Your task to perform on an android device: delete browsing data in the chrome app Image 0: 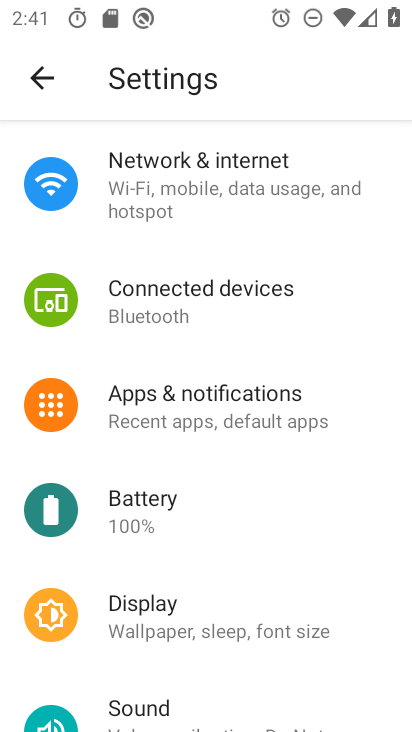
Step 0: press home button
Your task to perform on an android device: delete browsing data in the chrome app Image 1: 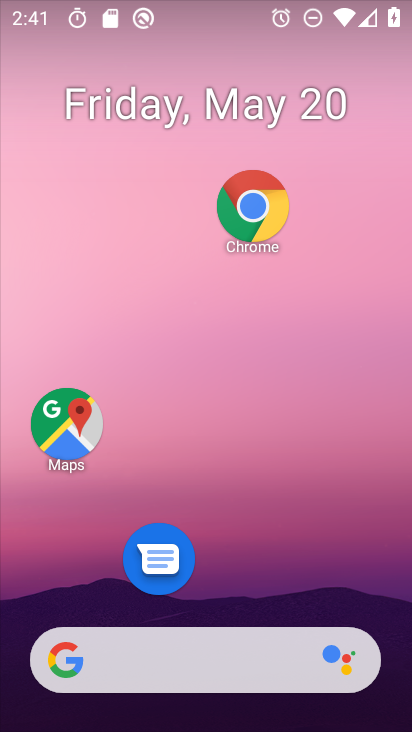
Step 1: drag from (211, 581) to (191, 18)
Your task to perform on an android device: delete browsing data in the chrome app Image 2: 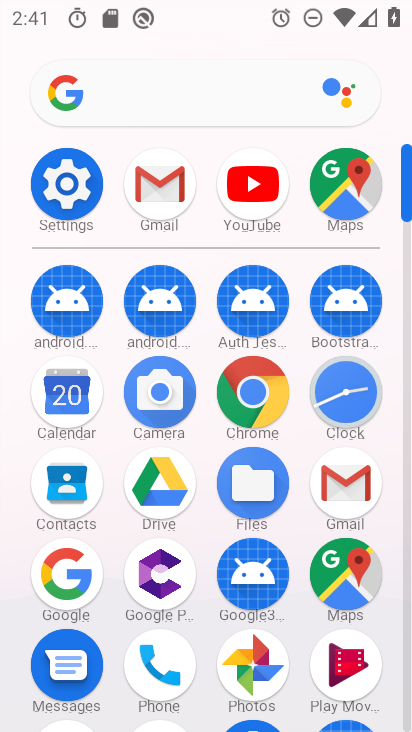
Step 2: click (248, 388)
Your task to perform on an android device: delete browsing data in the chrome app Image 3: 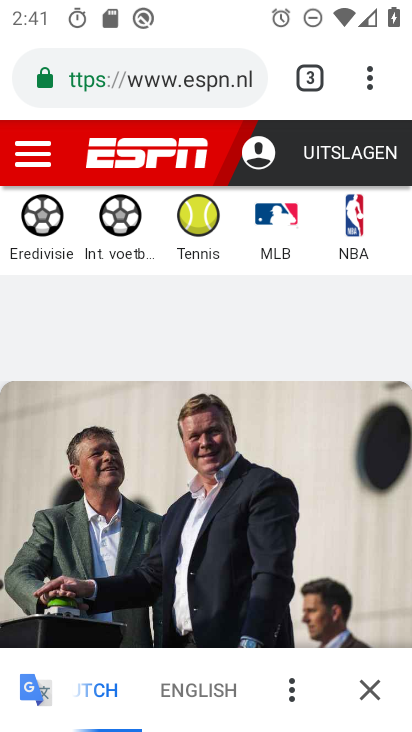
Step 3: click (366, 74)
Your task to perform on an android device: delete browsing data in the chrome app Image 4: 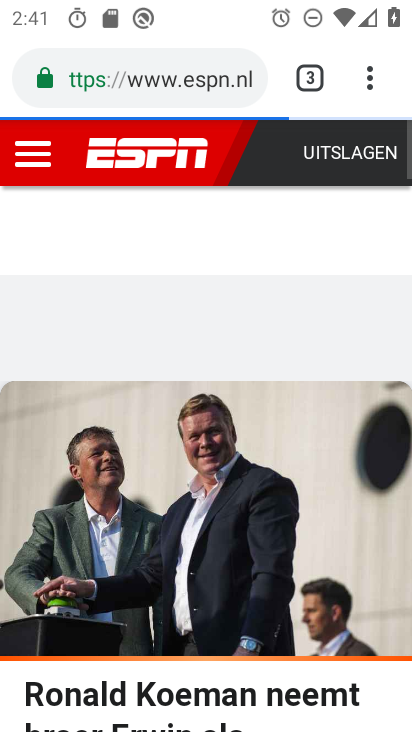
Step 4: drag from (371, 74) to (100, 432)
Your task to perform on an android device: delete browsing data in the chrome app Image 5: 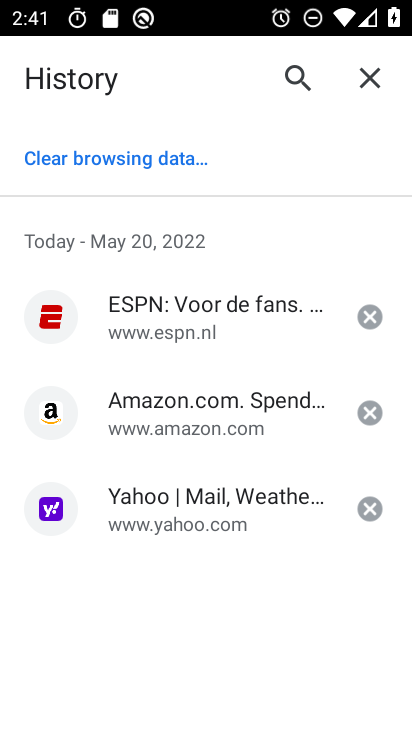
Step 5: click (90, 140)
Your task to perform on an android device: delete browsing data in the chrome app Image 6: 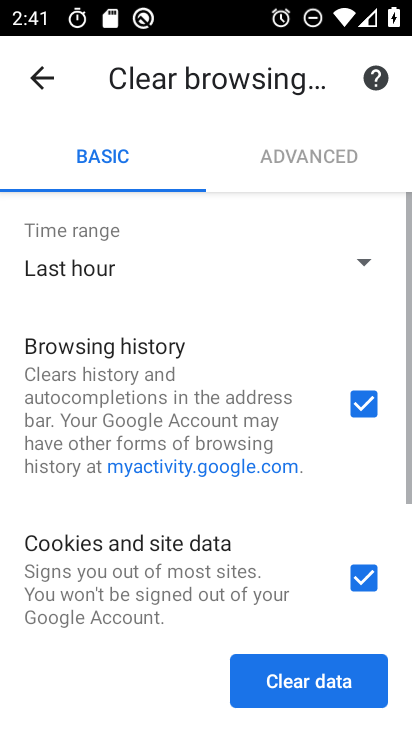
Step 6: click (317, 667)
Your task to perform on an android device: delete browsing data in the chrome app Image 7: 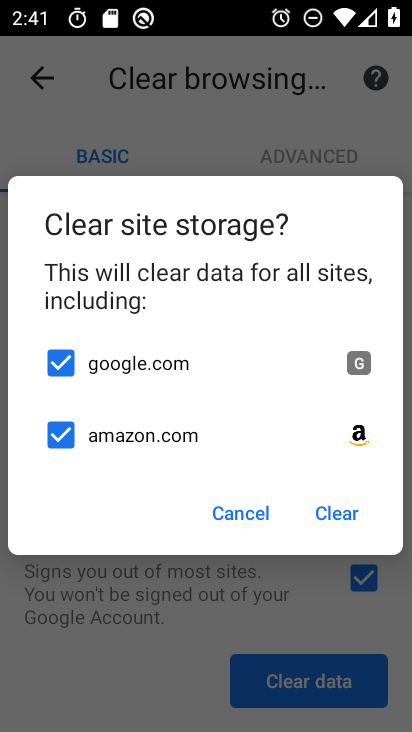
Step 7: click (327, 524)
Your task to perform on an android device: delete browsing data in the chrome app Image 8: 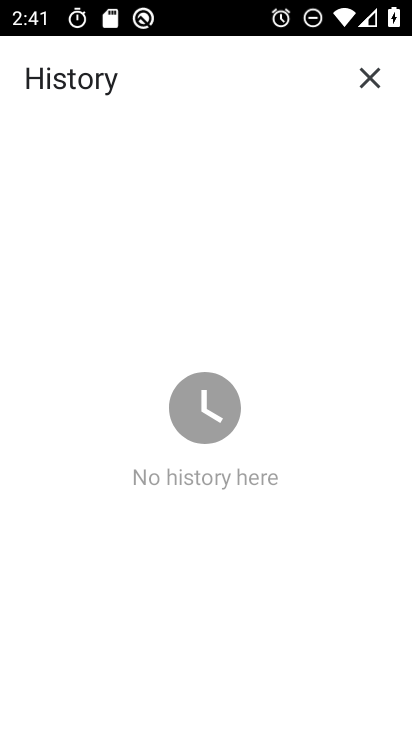
Step 8: task complete